Your task to perform on an android device: change the clock display to analog Image 0: 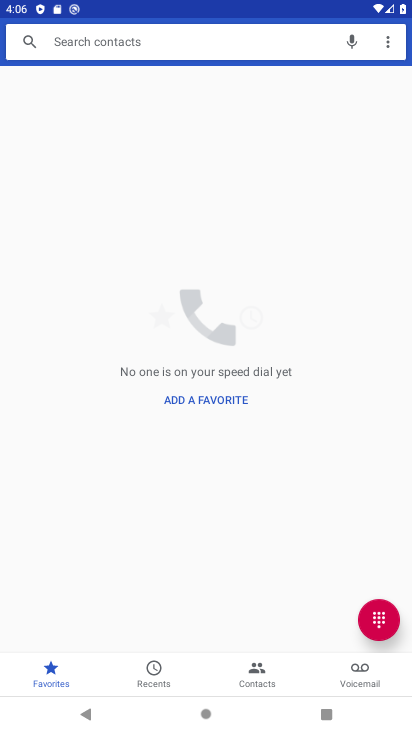
Step 0: click (88, 721)
Your task to perform on an android device: change the clock display to analog Image 1: 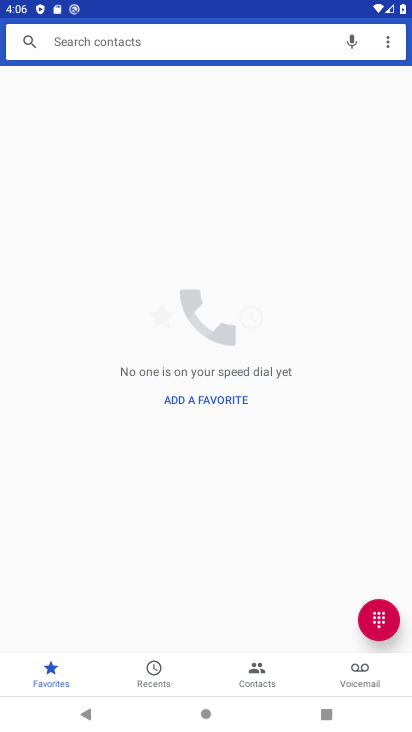
Step 1: click (87, 714)
Your task to perform on an android device: change the clock display to analog Image 2: 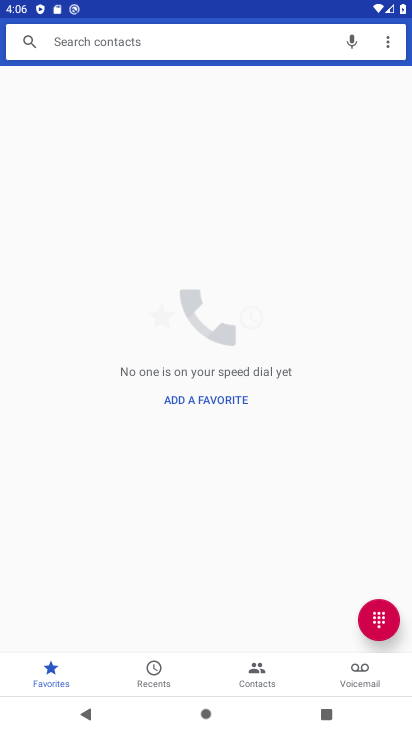
Step 2: click (85, 712)
Your task to perform on an android device: change the clock display to analog Image 3: 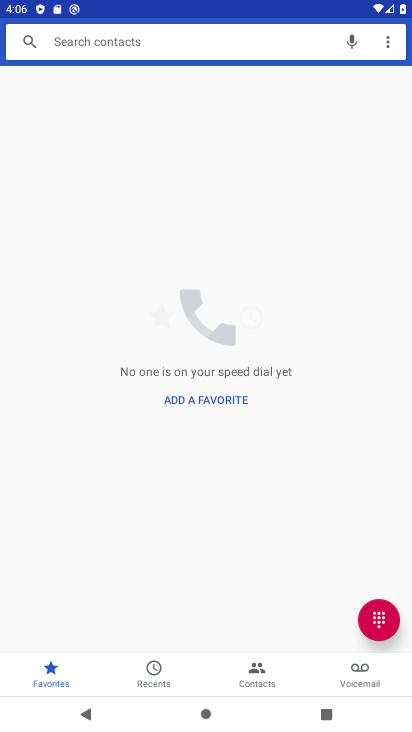
Step 3: click (201, 714)
Your task to perform on an android device: change the clock display to analog Image 4: 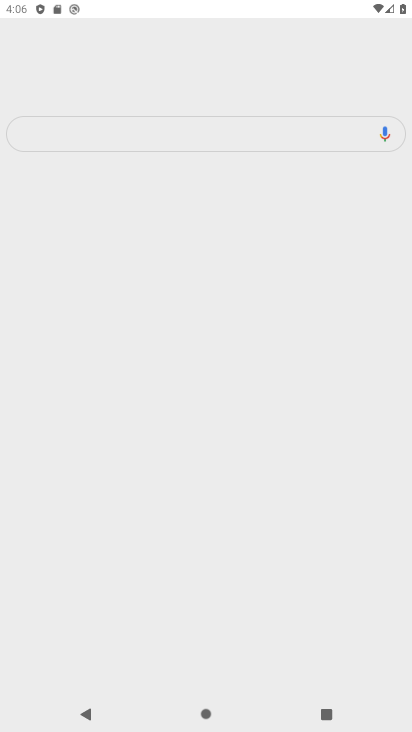
Step 4: click (201, 714)
Your task to perform on an android device: change the clock display to analog Image 5: 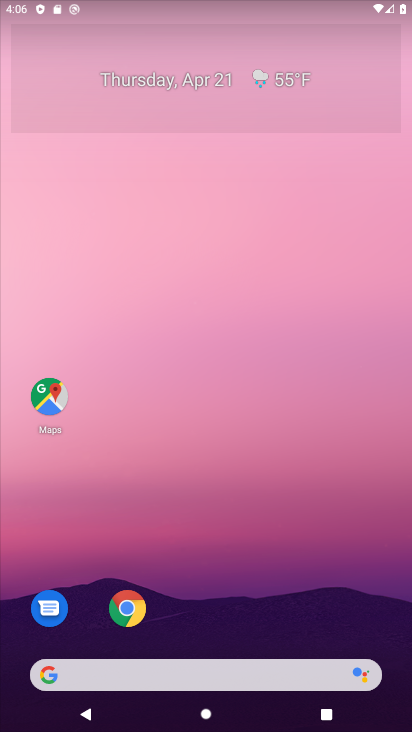
Step 5: drag from (244, 603) to (359, 9)
Your task to perform on an android device: change the clock display to analog Image 6: 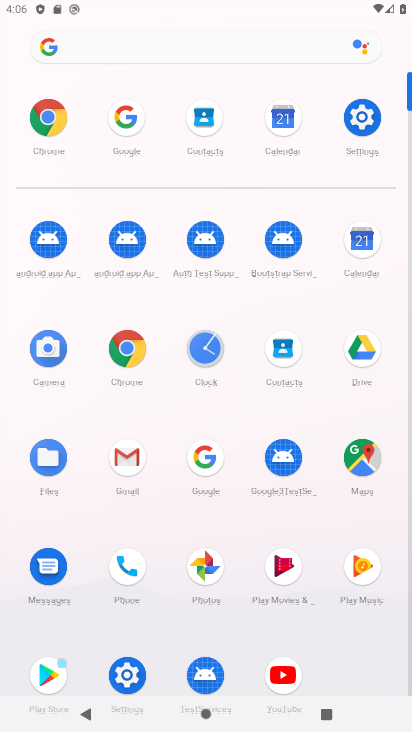
Step 6: click (205, 361)
Your task to perform on an android device: change the clock display to analog Image 7: 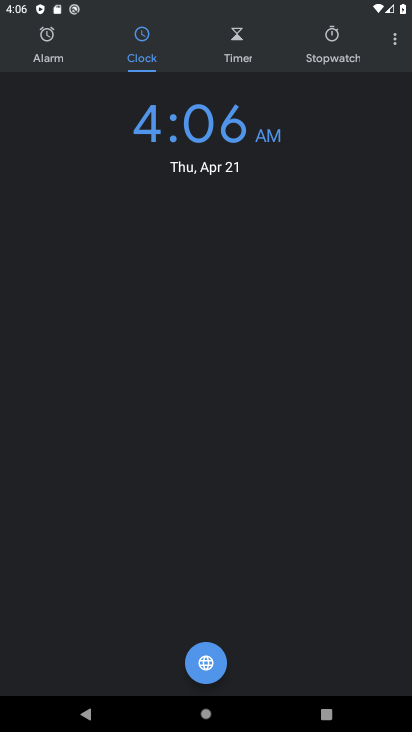
Step 7: click (207, 356)
Your task to perform on an android device: change the clock display to analog Image 8: 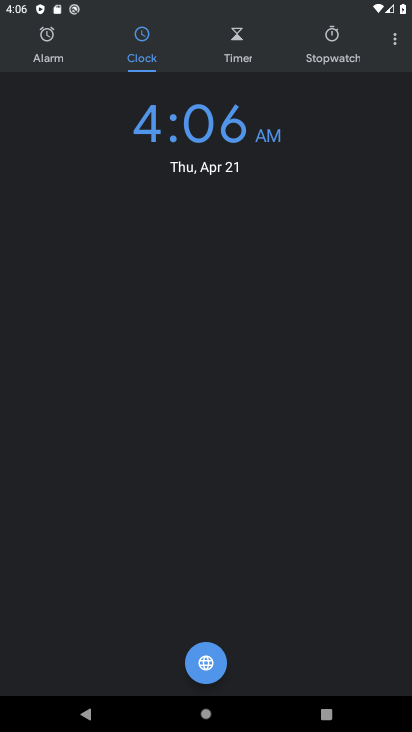
Step 8: click (393, 36)
Your task to perform on an android device: change the clock display to analog Image 9: 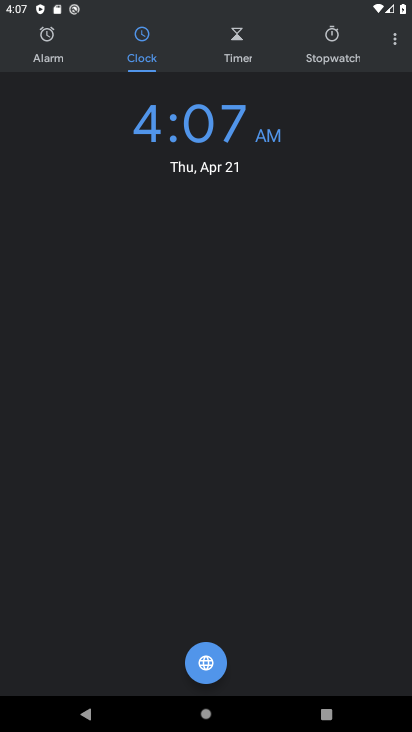
Step 9: click (359, 78)
Your task to perform on an android device: change the clock display to analog Image 10: 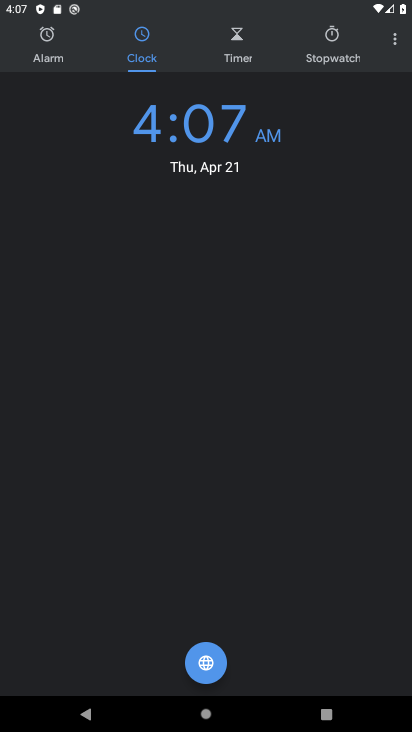
Step 10: click (401, 41)
Your task to perform on an android device: change the clock display to analog Image 11: 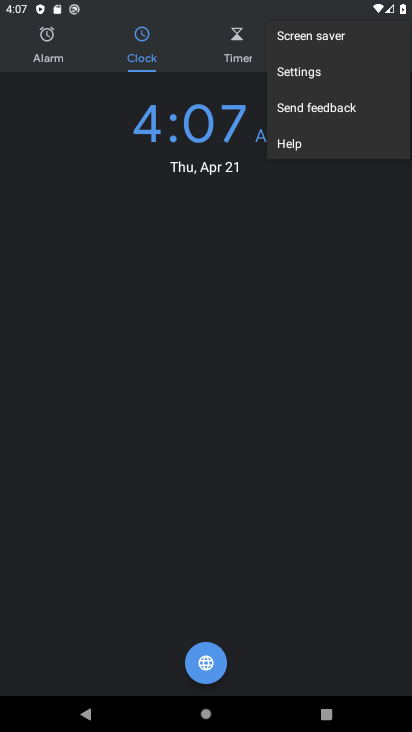
Step 11: click (393, 38)
Your task to perform on an android device: change the clock display to analog Image 12: 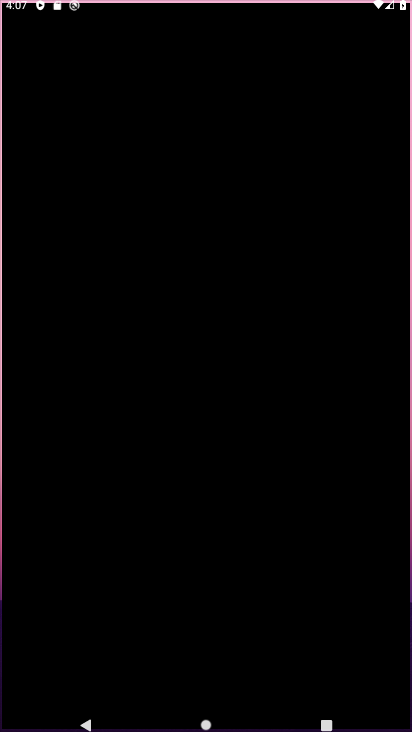
Step 12: click (308, 84)
Your task to perform on an android device: change the clock display to analog Image 13: 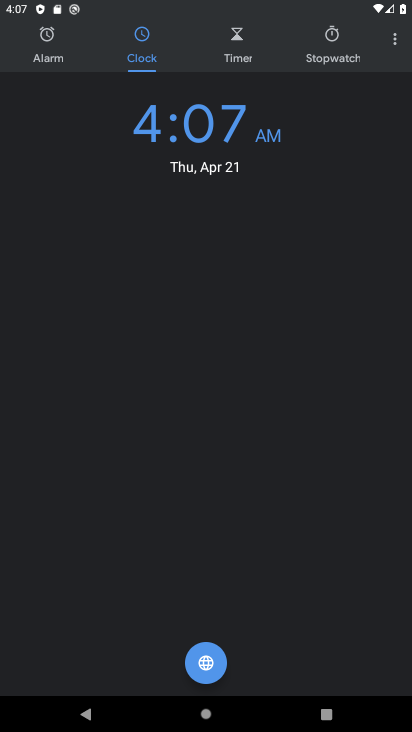
Step 13: click (398, 47)
Your task to perform on an android device: change the clock display to analog Image 14: 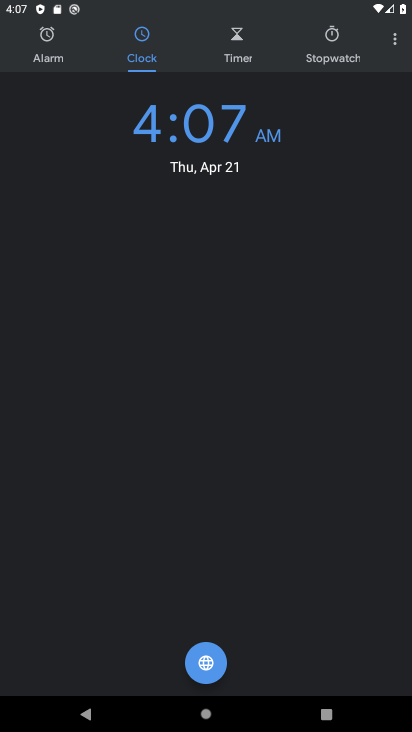
Step 14: click (394, 46)
Your task to perform on an android device: change the clock display to analog Image 15: 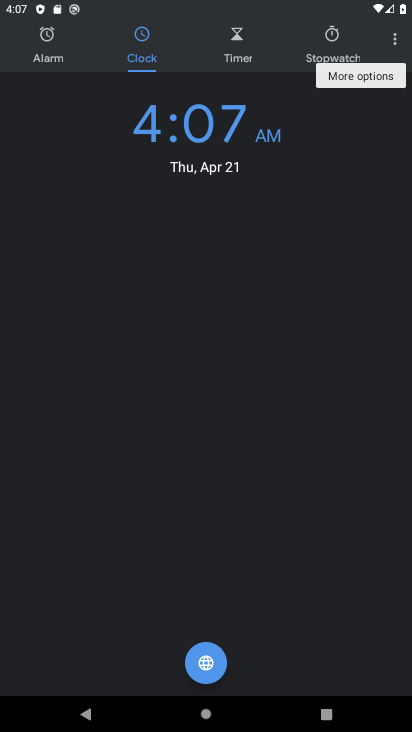
Step 15: click (394, 46)
Your task to perform on an android device: change the clock display to analog Image 16: 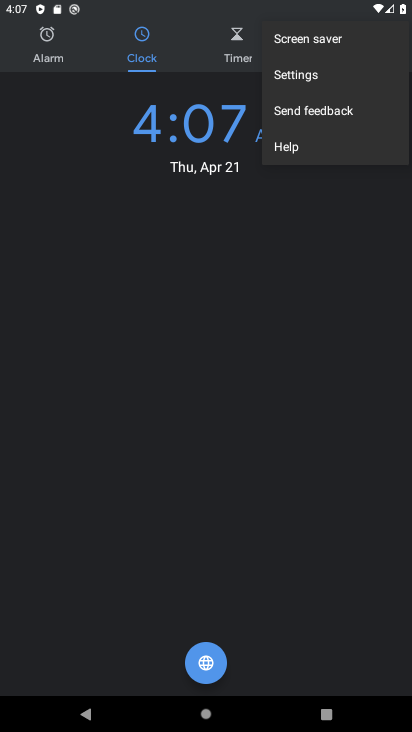
Step 16: click (303, 82)
Your task to perform on an android device: change the clock display to analog Image 17: 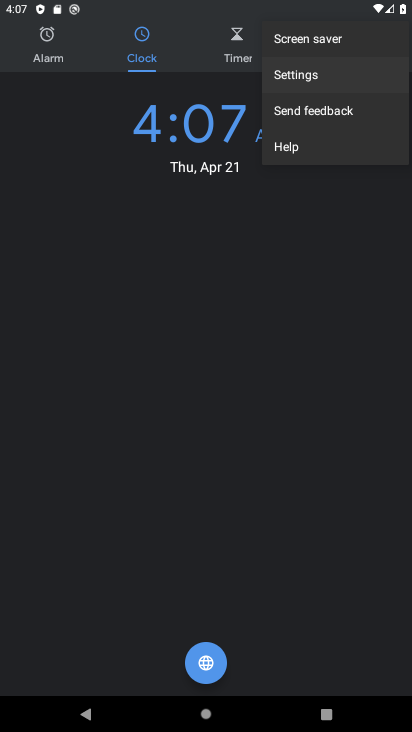
Step 17: click (305, 75)
Your task to perform on an android device: change the clock display to analog Image 18: 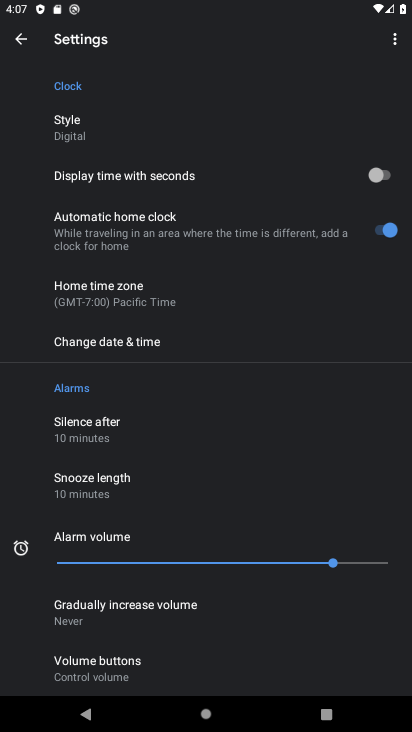
Step 18: drag from (206, 552) to (253, 221)
Your task to perform on an android device: change the clock display to analog Image 19: 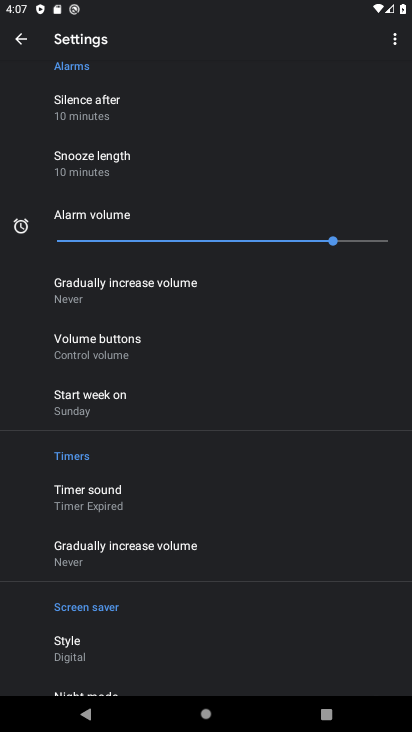
Step 19: drag from (183, 462) to (228, 94)
Your task to perform on an android device: change the clock display to analog Image 20: 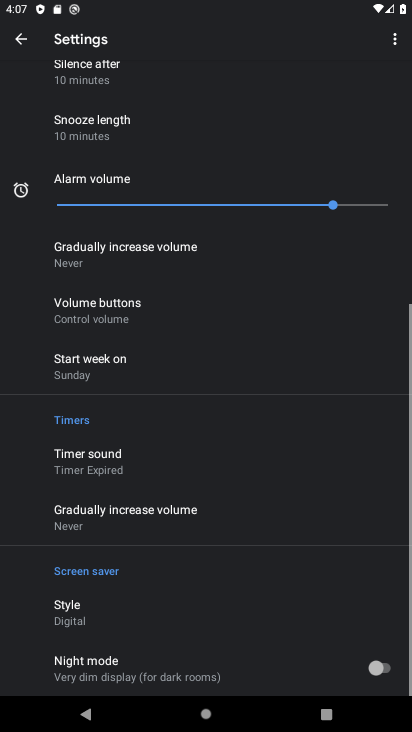
Step 20: drag from (226, 86) to (143, 570)
Your task to perform on an android device: change the clock display to analog Image 21: 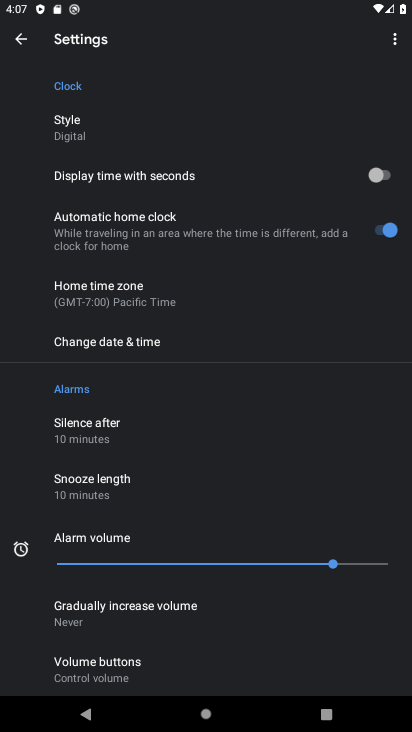
Step 21: drag from (230, 490) to (243, 87)
Your task to perform on an android device: change the clock display to analog Image 22: 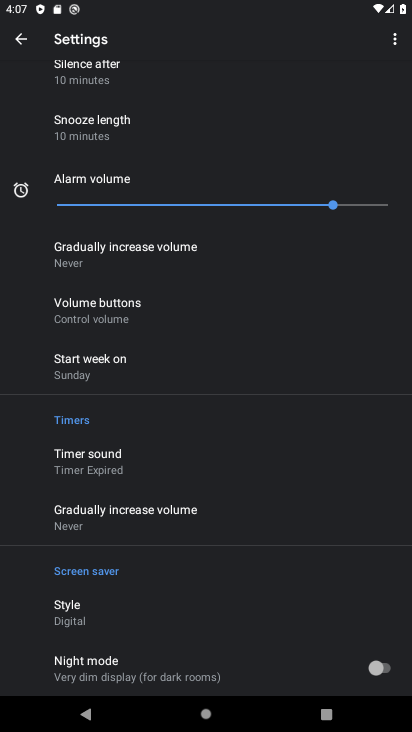
Step 22: drag from (171, 114) to (163, 484)
Your task to perform on an android device: change the clock display to analog Image 23: 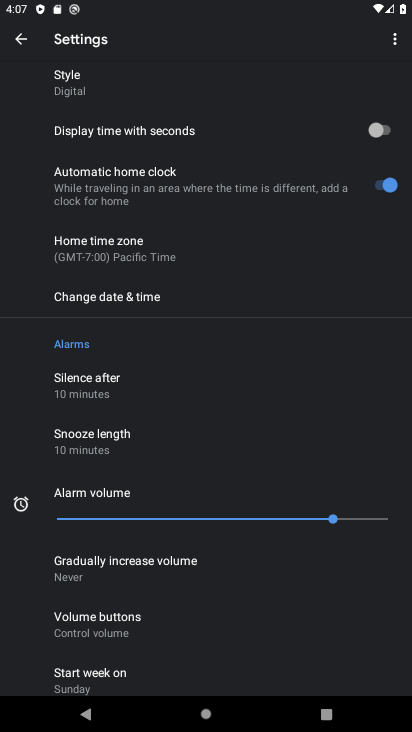
Step 23: click (164, 130)
Your task to perform on an android device: change the clock display to analog Image 24: 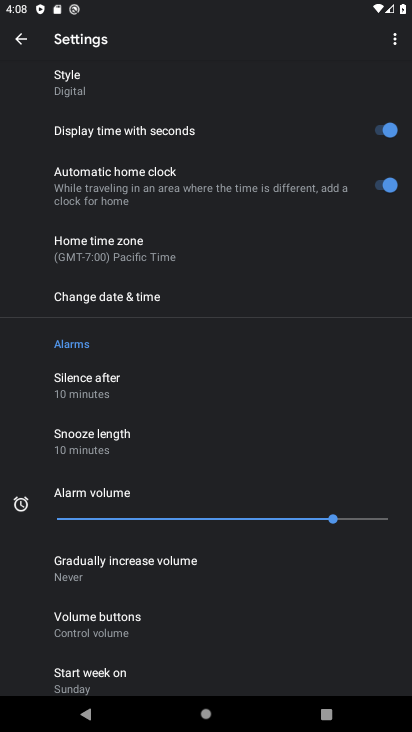
Step 24: task complete